Your task to perform on an android device: What's the weather going to be tomorrow? Image 0: 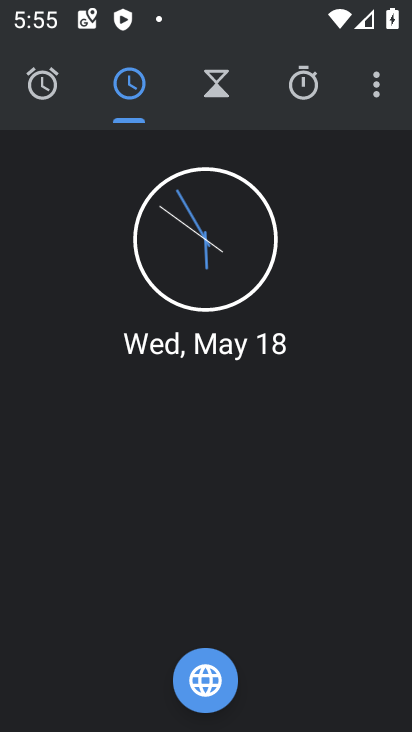
Step 0: press home button
Your task to perform on an android device: What's the weather going to be tomorrow? Image 1: 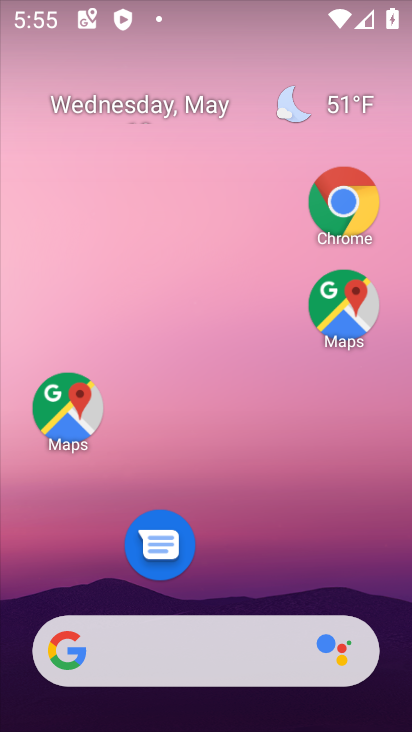
Step 1: drag from (271, 539) to (233, 72)
Your task to perform on an android device: What's the weather going to be tomorrow? Image 2: 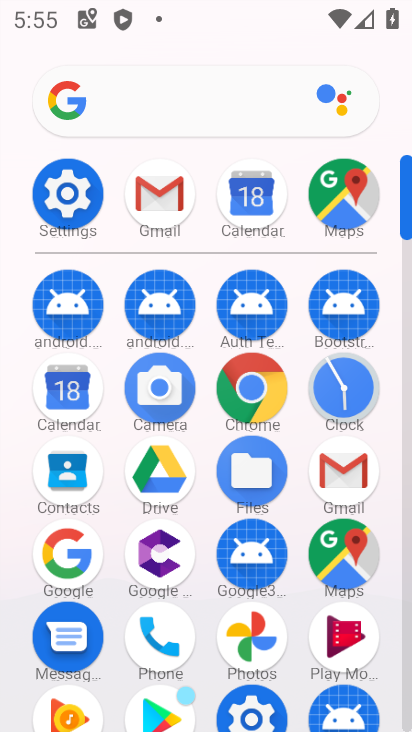
Step 2: click (74, 559)
Your task to perform on an android device: What's the weather going to be tomorrow? Image 3: 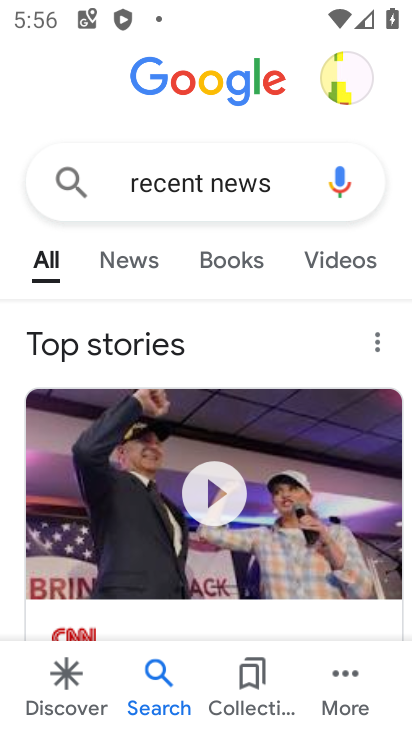
Step 3: drag from (262, 468) to (258, 226)
Your task to perform on an android device: What's the weather going to be tomorrow? Image 4: 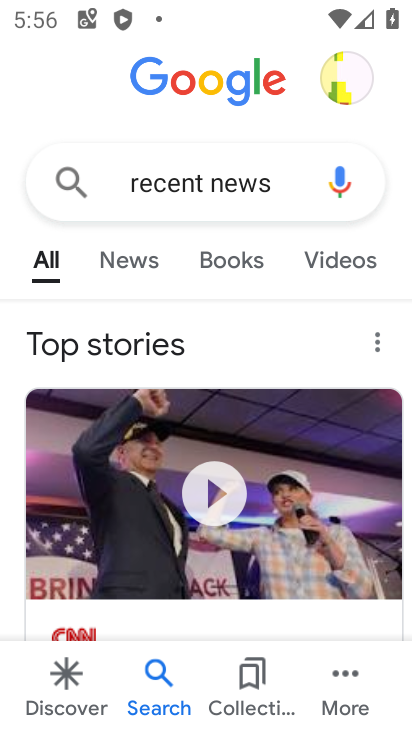
Step 4: click (283, 184)
Your task to perform on an android device: What's the weather going to be tomorrow? Image 5: 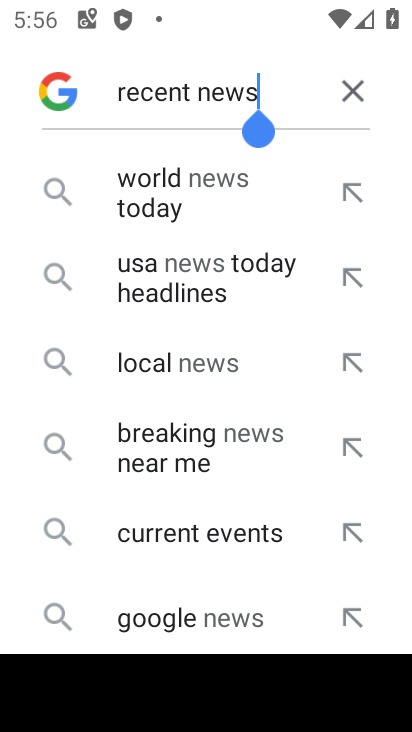
Step 5: click (352, 97)
Your task to perform on an android device: What's the weather going to be tomorrow? Image 6: 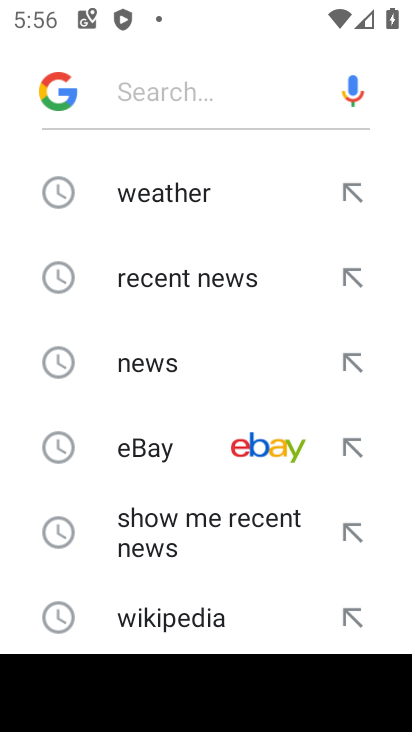
Step 6: click (160, 194)
Your task to perform on an android device: What's the weather going to be tomorrow? Image 7: 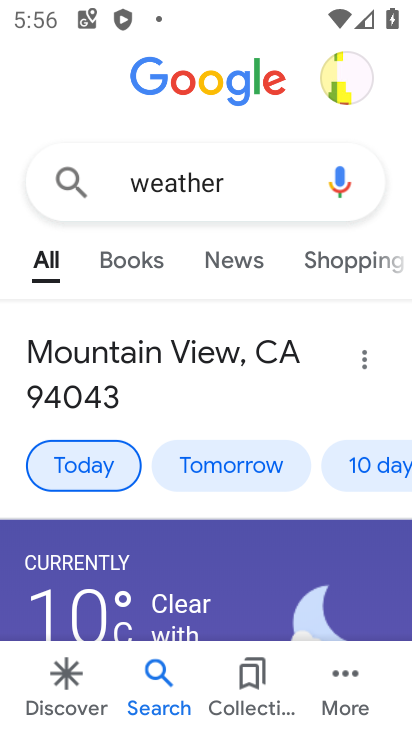
Step 7: click (226, 477)
Your task to perform on an android device: What's the weather going to be tomorrow? Image 8: 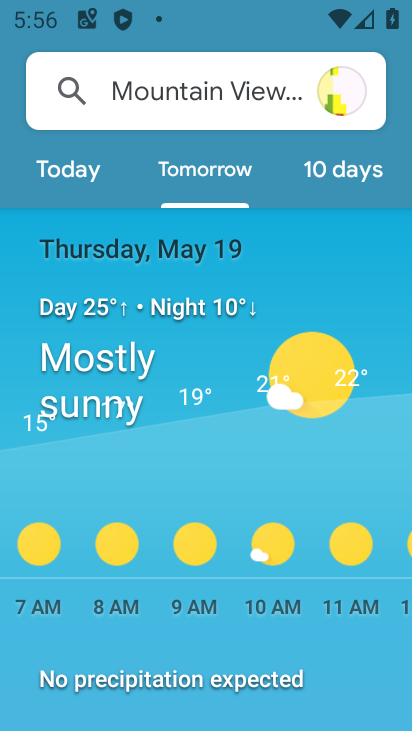
Step 8: task complete